Your task to perform on an android device: Go to accessibility settings Image 0: 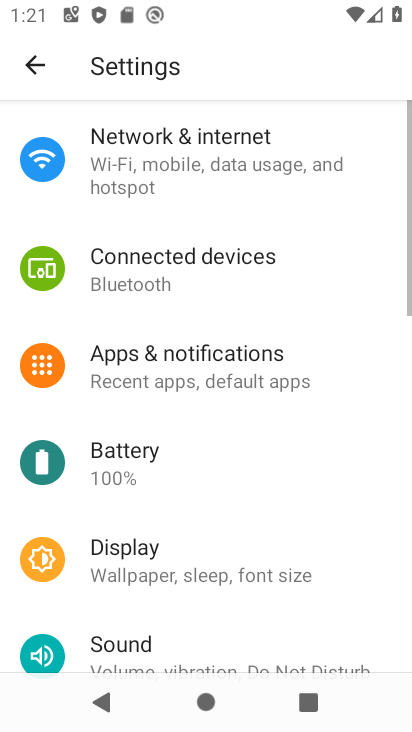
Step 0: drag from (334, 602) to (304, 226)
Your task to perform on an android device: Go to accessibility settings Image 1: 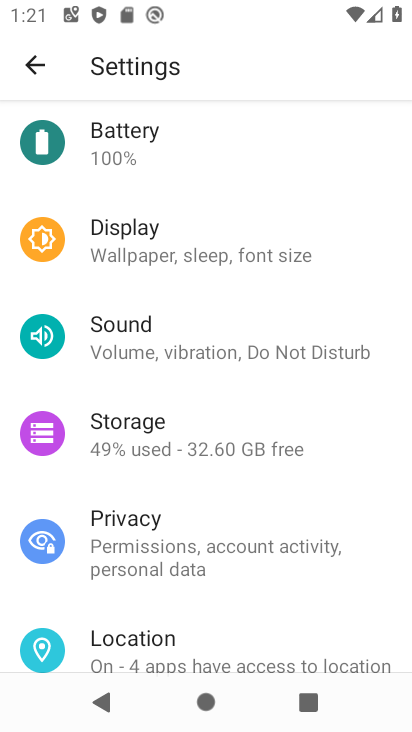
Step 1: drag from (303, 639) to (261, 288)
Your task to perform on an android device: Go to accessibility settings Image 2: 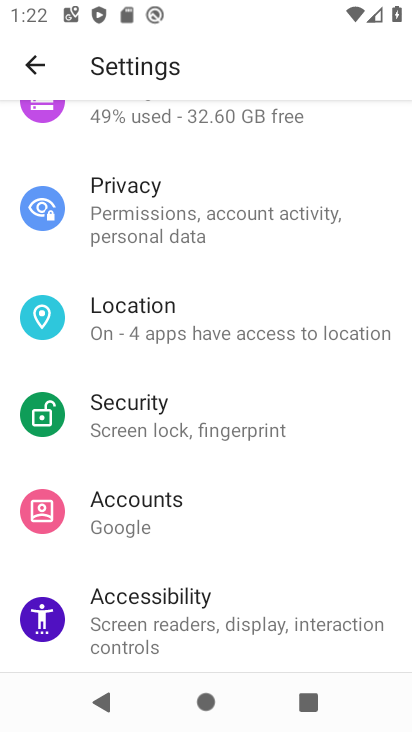
Step 2: click (236, 610)
Your task to perform on an android device: Go to accessibility settings Image 3: 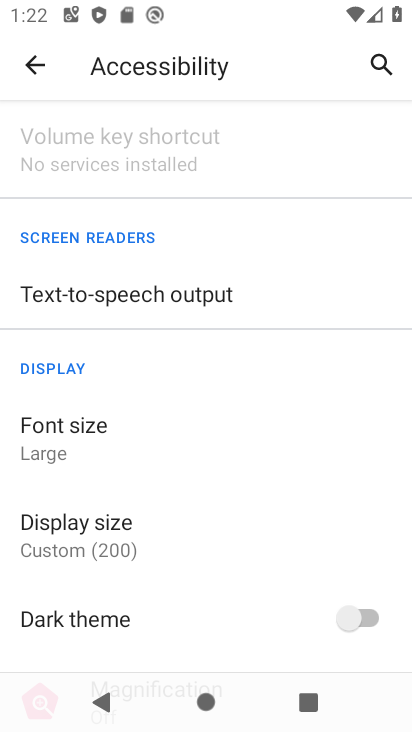
Step 3: task complete